Your task to perform on an android device: Search for 3d printer on AliExpress Image 0: 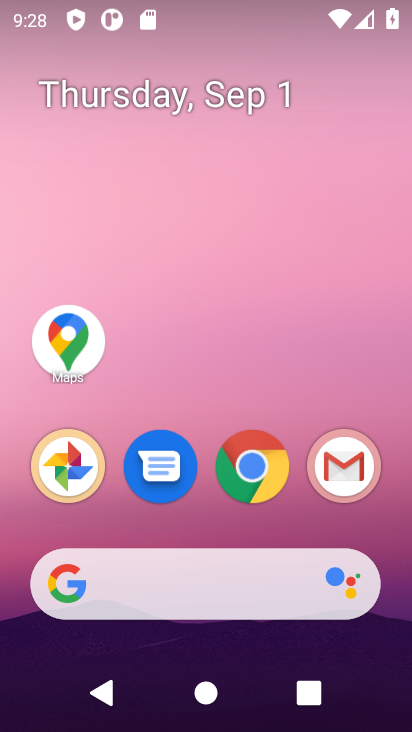
Step 0: drag from (384, 547) to (374, 76)
Your task to perform on an android device: Search for 3d printer on AliExpress Image 1: 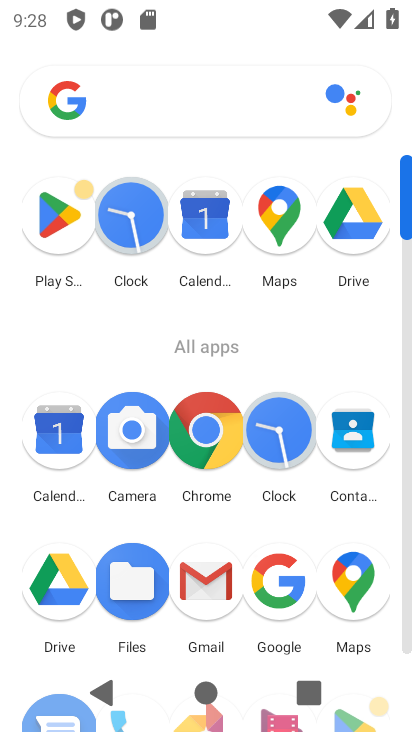
Step 1: click (200, 429)
Your task to perform on an android device: Search for 3d printer on AliExpress Image 2: 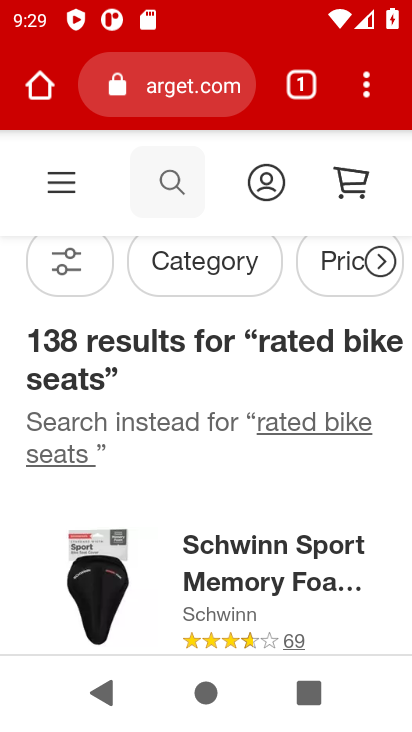
Step 2: click (184, 85)
Your task to perform on an android device: Search for 3d printer on AliExpress Image 3: 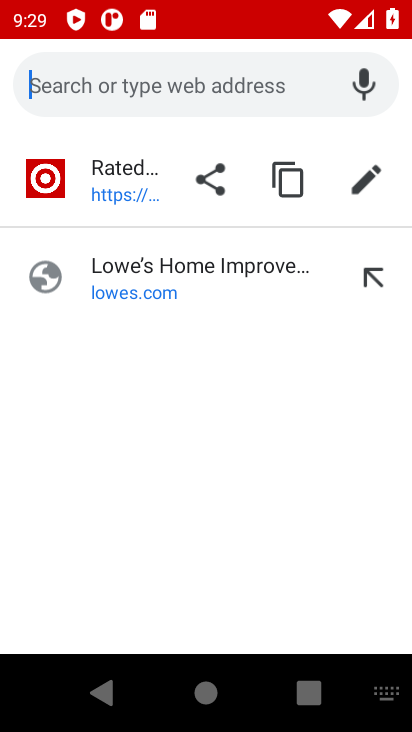
Step 3: type "aliexpress"
Your task to perform on an android device: Search for 3d printer on AliExpress Image 4: 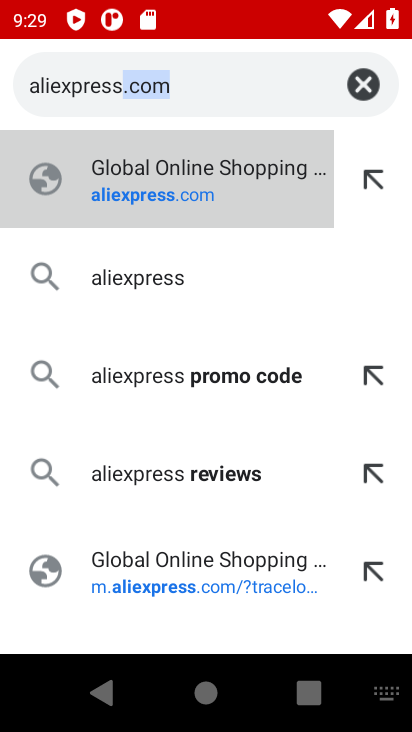
Step 4: press enter
Your task to perform on an android device: Search for 3d printer on AliExpress Image 5: 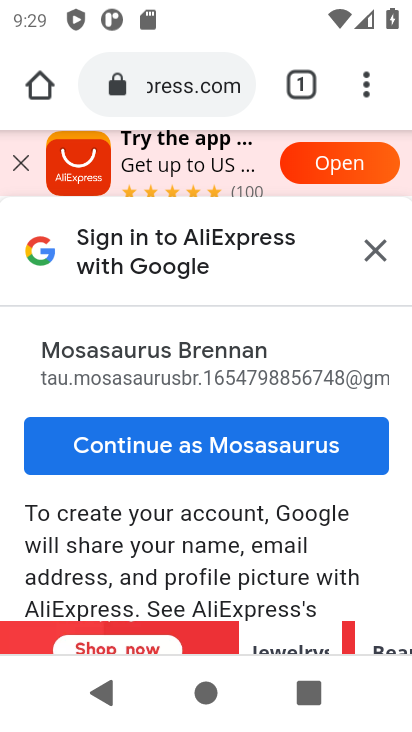
Step 5: click (379, 270)
Your task to perform on an android device: Search for 3d printer on AliExpress Image 6: 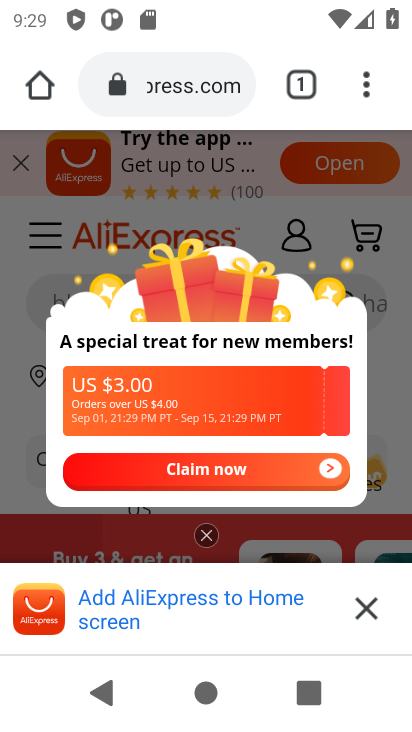
Step 6: click (370, 607)
Your task to perform on an android device: Search for 3d printer on AliExpress Image 7: 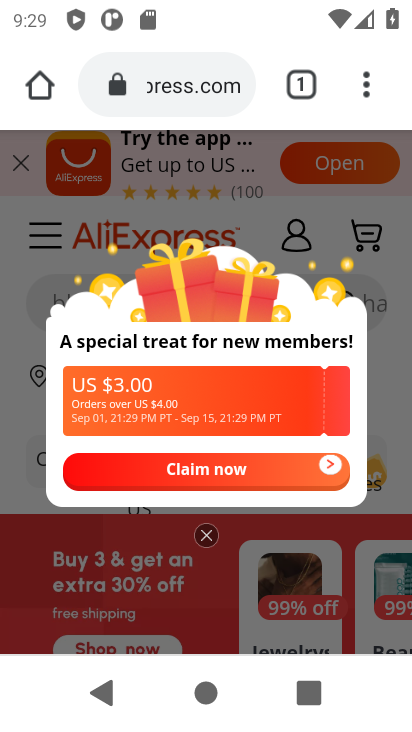
Step 7: click (205, 535)
Your task to perform on an android device: Search for 3d printer on AliExpress Image 8: 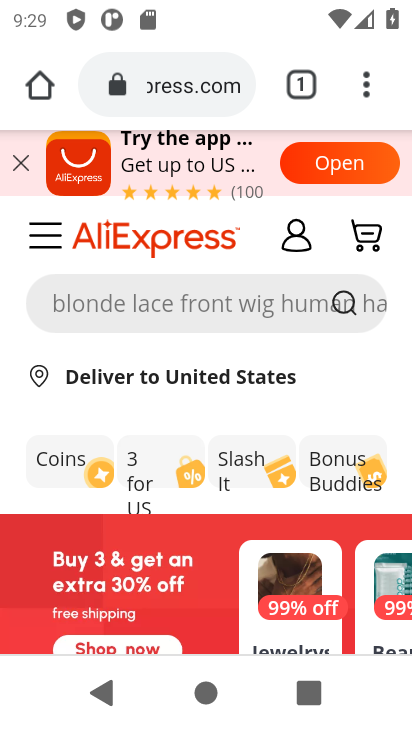
Step 8: click (173, 304)
Your task to perform on an android device: Search for 3d printer on AliExpress Image 9: 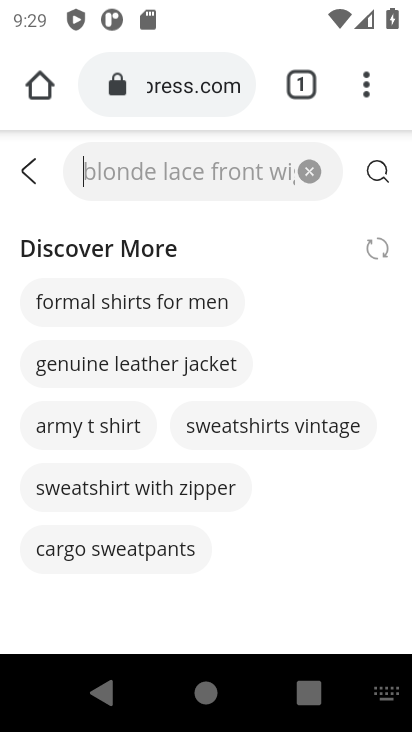
Step 9: type "3d printer"
Your task to perform on an android device: Search for 3d printer on AliExpress Image 10: 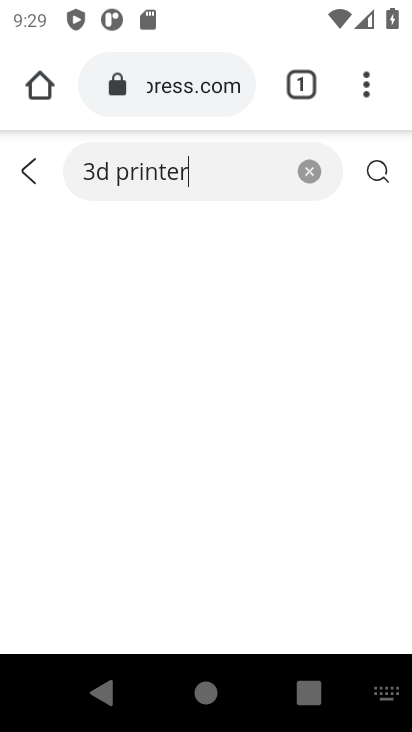
Step 10: press enter
Your task to perform on an android device: Search for 3d printer on AliExpress Image 11: 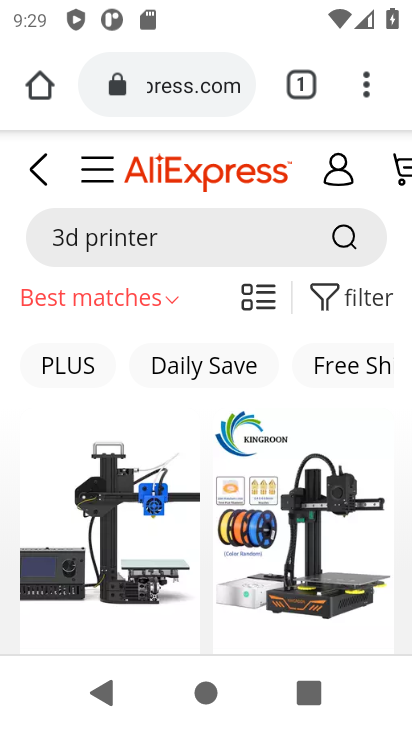
Step 11: click (145, 255)
Your task to perform on an android device: Search for 3d printer on AliExpress Image 12: 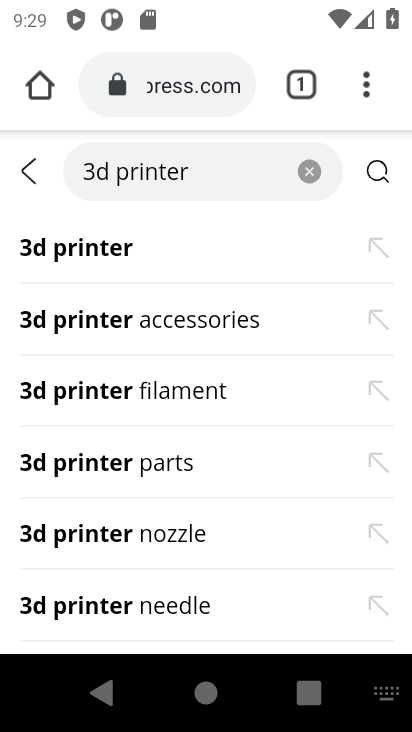
Step 12: click (181, 248)
Your task to perform on an android device: Search for 3d printer on AliExpress Image 13: 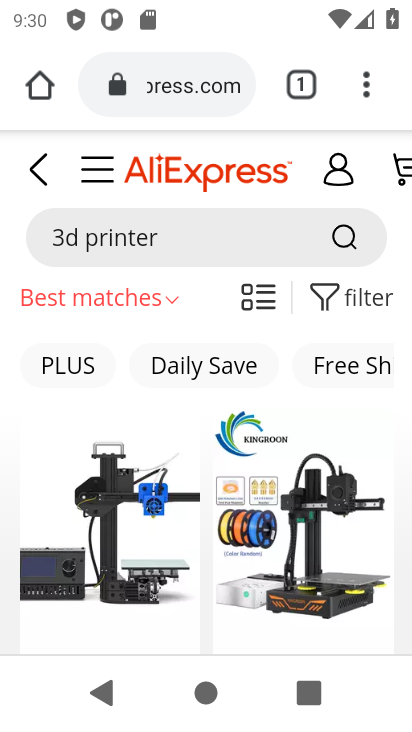
Step 13: drag from (160, 549) to (144, 334)
Your task to perform on an android device: Search for 3d printer on AliExpress Image 14: 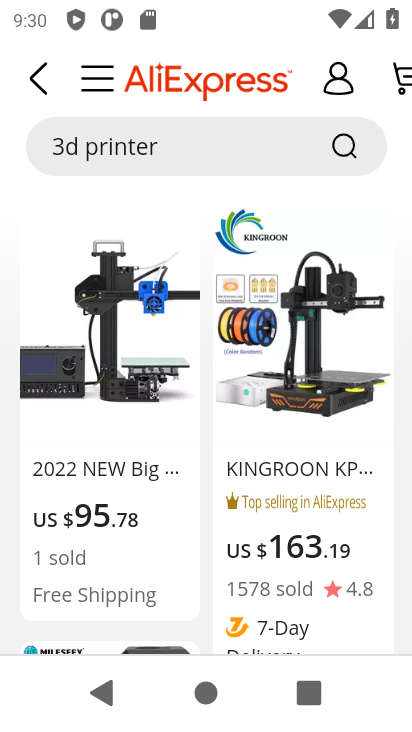
Step 14: drag from (146, 534) to (155, 246)
Your task to perform on an android device: Search for 3d printer on AliExpress Image 15: 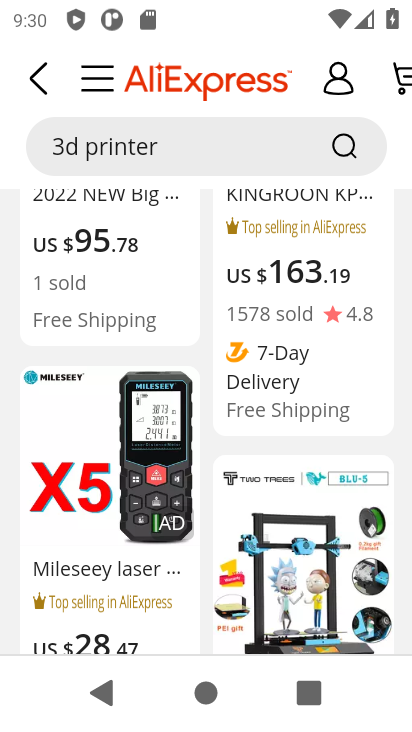
Step 15: drag from (177, 483) to (183, 566)
Your task to perform on an android device: Search for 3d printer on AliExpress Image 16: 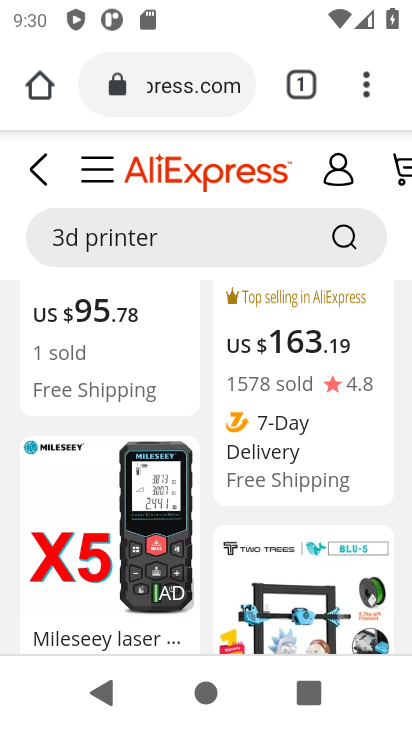
Step 16: drag from (271, 310) to (264, 552)
Your task to perform on an android device: Search for 3d printer on AliExpress Image 17: 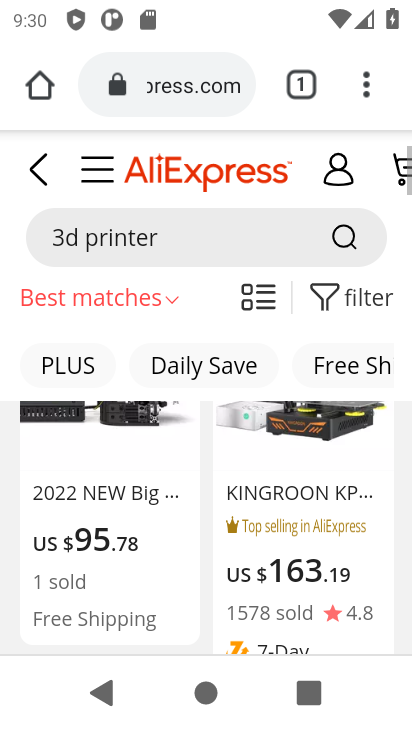
Step 17: click (364, 290)
Your task to perform on an android device: Search for 3d printer on AliExpress Image 18: 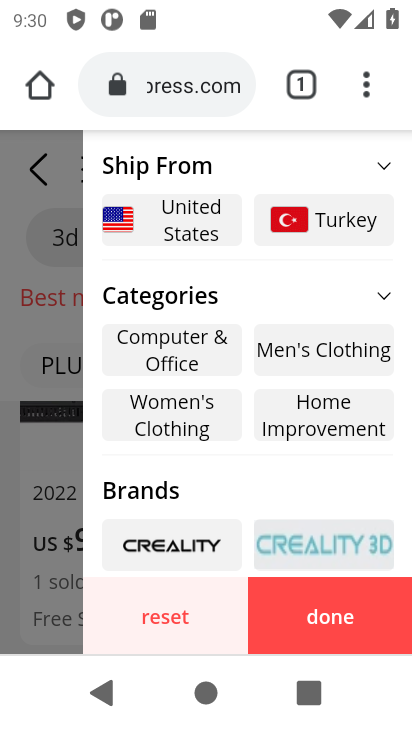
Step 18: drag from (218, 478) to (203, 302)
Your task to perform on an android device: Search for 3d printer on AliExpress Image 19: 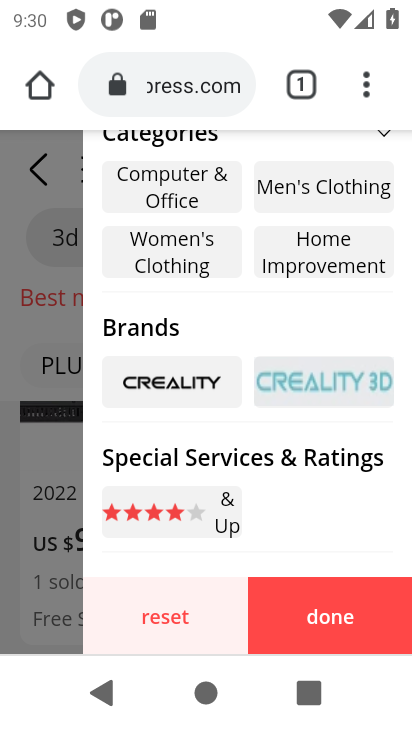
Step 19: drag from (187, 396) to (194, 208)
Your task to perform on an android device: Search for 3d printer on AliExpress Image 20: 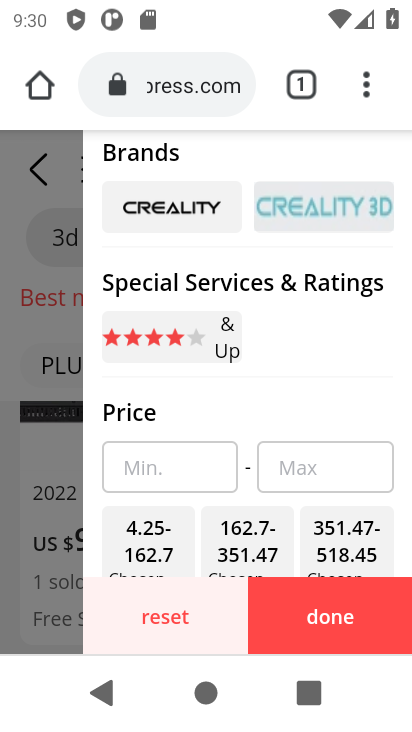
Step 20: drag from (197, 522) to (205, 205)
Your task to perform on an android device: Search for 3d printer on AliExpress Image 21: 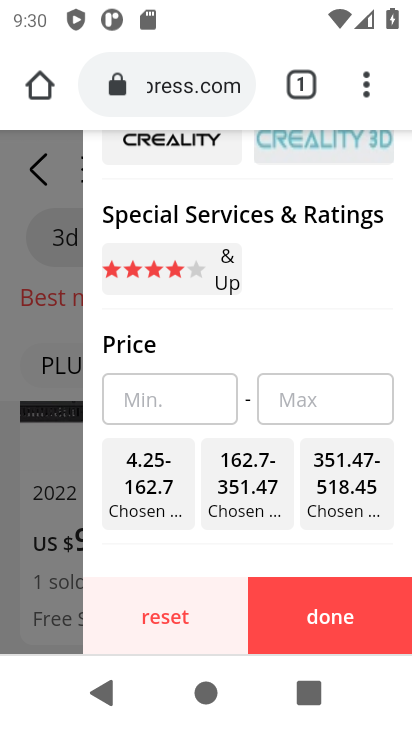
Step 21: drag from (217, 154) to (218, 465)
Your task to perform on an android device: Search for 3d printer on AliExpress Image 22: 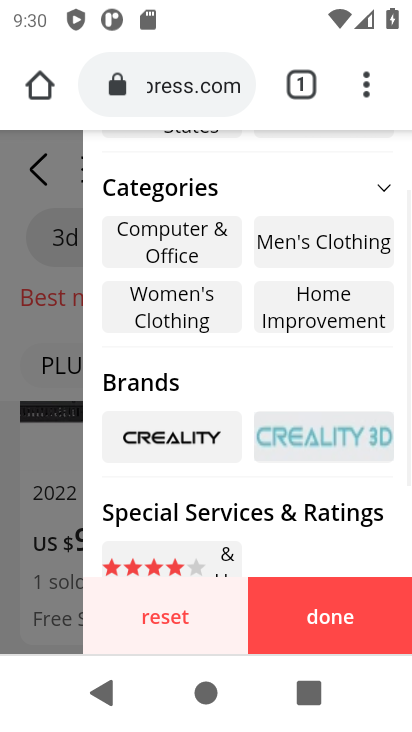
Step 22: drag from (226, 188) to (217, 403)
Your task to perform on an android device: Search for 3d printer on AliExpress Image 23: 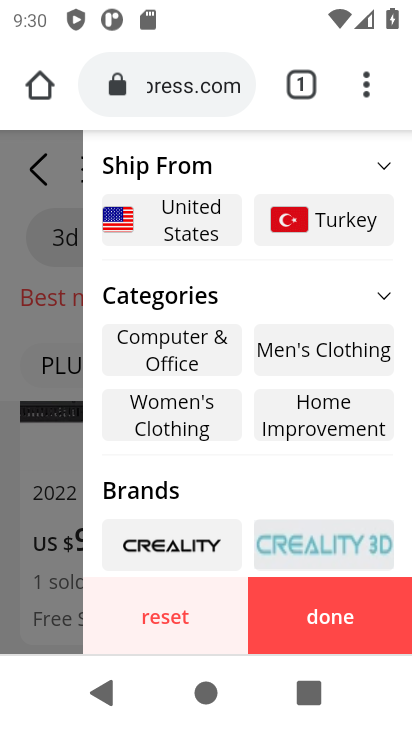
Step 23: click (383, 158)
Your task to perform on an android device: Search for 3d printer on AliExpress Image 24: 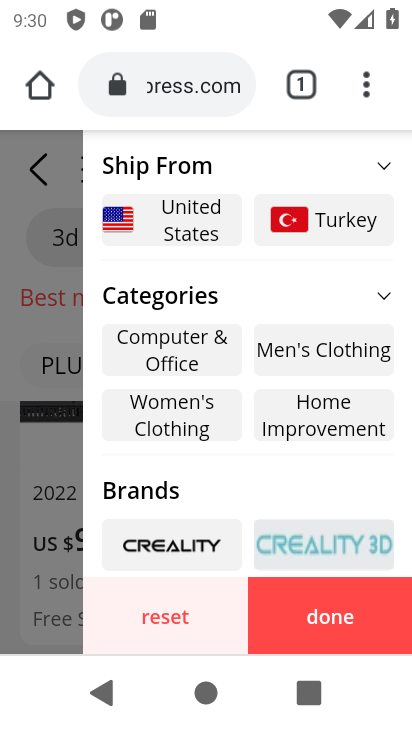
Step 24: click (384, 167)
Your task to perform on an android device: Search for 3d printer on AliExpress Image 25: 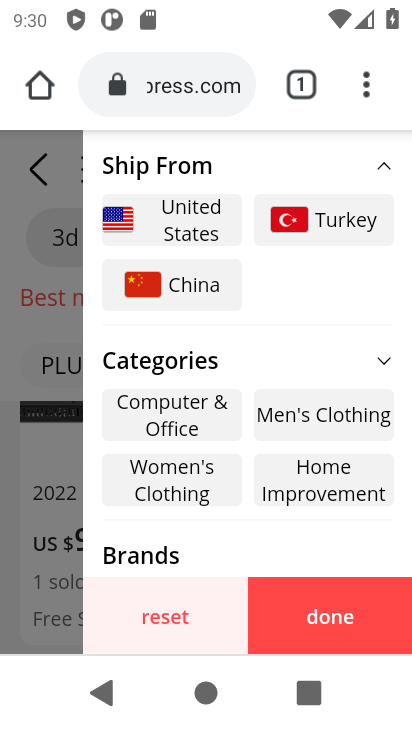
Step 25: click (379, 362)
Your task to perform on an android device: Search for 3d printer on AliExpress Image 26: 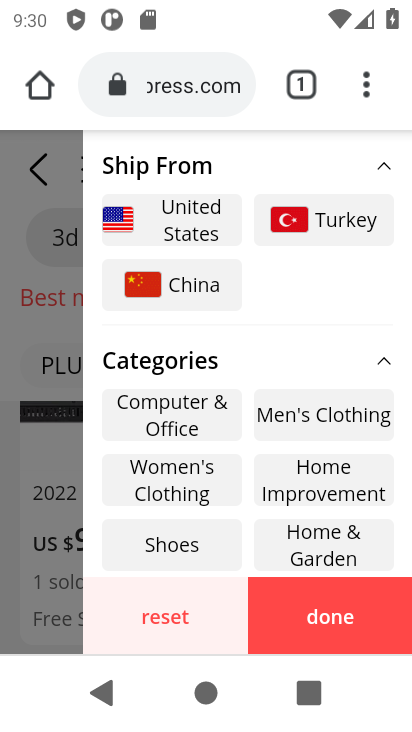
Step 26: drag from (258, 507) to (250, 335)
Your task to perform on an android device: Search for 3d printer on AliExpress Image 27: 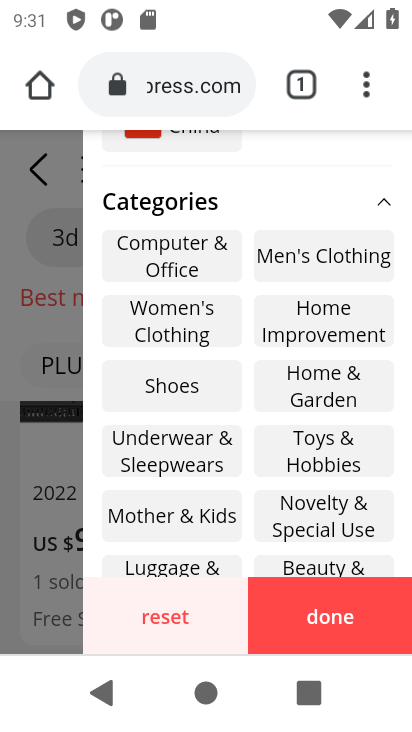
Step 27: drag from (220, 511) to (222, 303)
Your task to perform on an android device: Search for 3d printer on AliExpress Image 28: 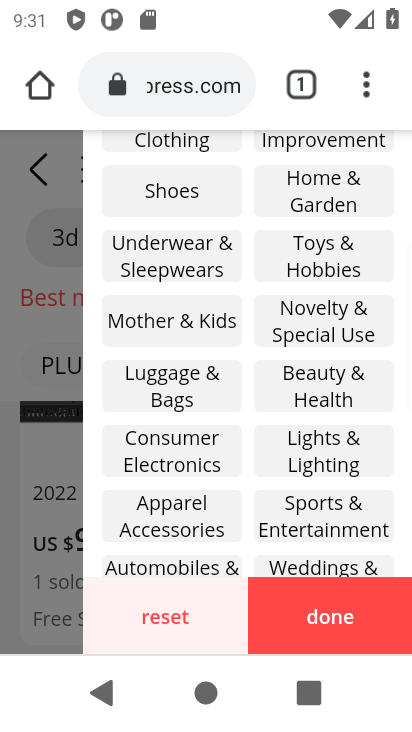
Step 28: drag from (202, 479) to (199, 299)
Your task to perform on an android device: Search for 3d printer on AliExpress Image 29: 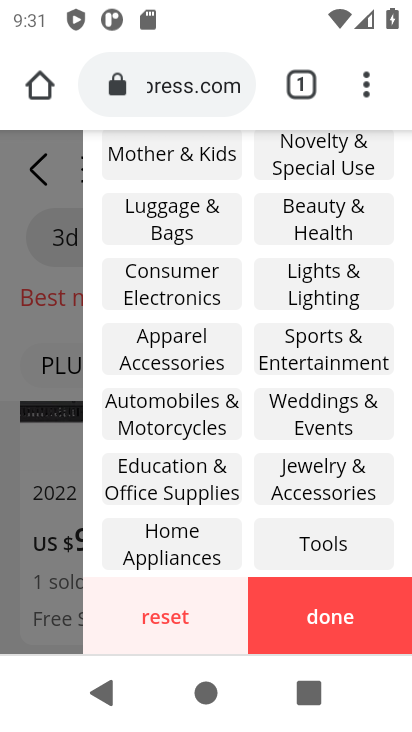
Step 29: drag from (200, 499) to (199, 356)
Your task to perform on an android device: Search for 3d printer on AliExpress Image 30: 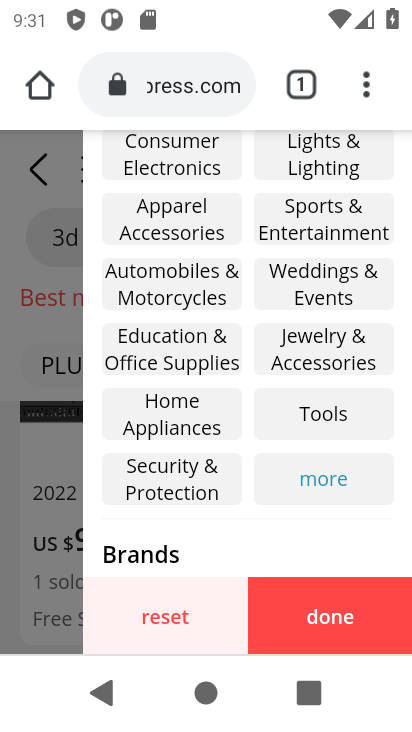
Step 30: click (336, 481)
Your task to perform on an android device: Search for 3d printer on AliExpress Image 31: 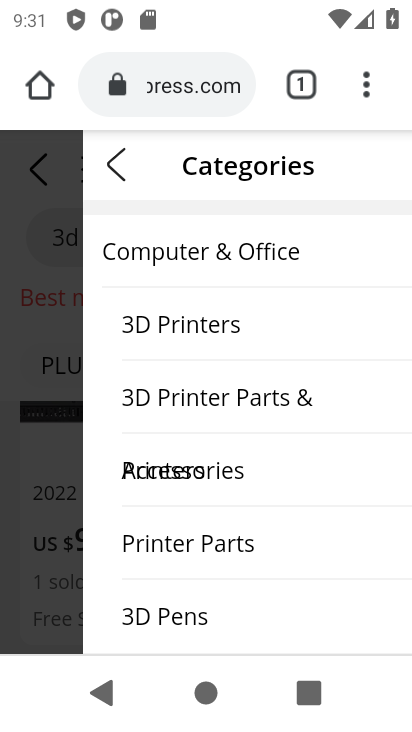
Step 31: click (220, 324)
Your task to perform on an android device: Search for 3d printer on AliExpress Image 32: 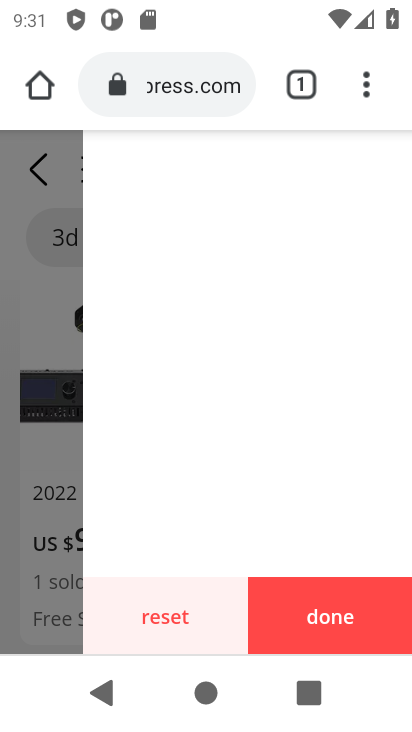
Step 32: click (320, 619)
Your task to perform on an android device: Search for 3d printer on AliExpress Image 33: 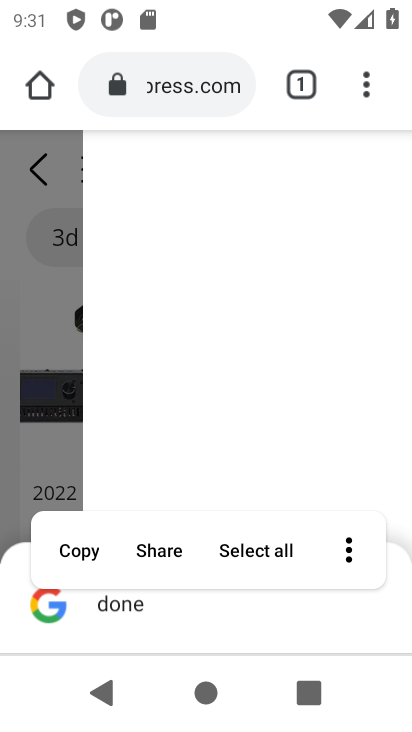
Step 33: click (60, 434)
Your task to perform on an android device: Search for 3d printer on AliExpress Image 34: 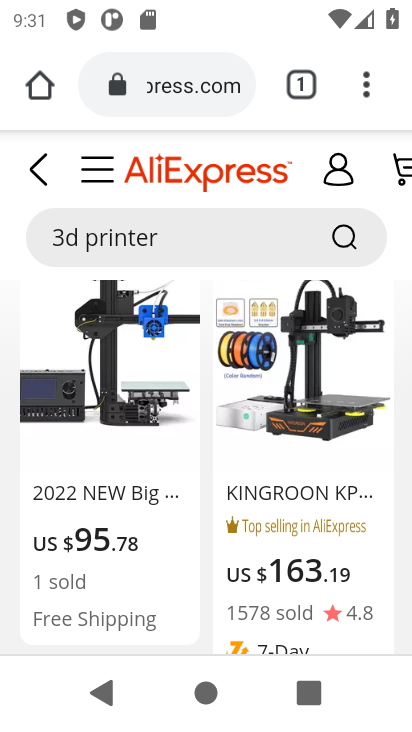
Step 34: task complete